Your task to perform on an android device: Open the web browser Image 0: 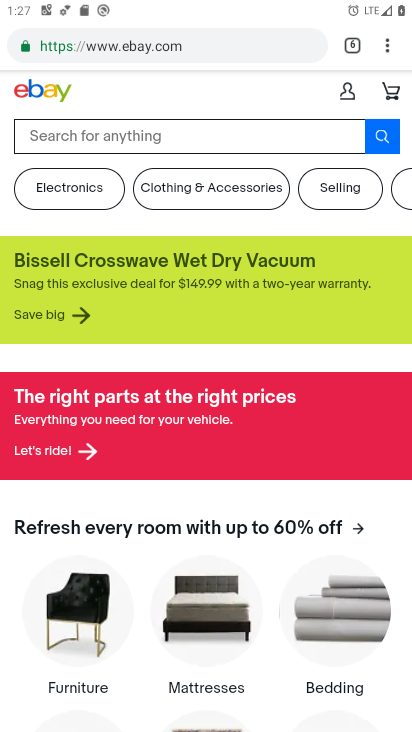
Step 0: press home button
Your task to perform on an android device: Open the web browser Image 1: 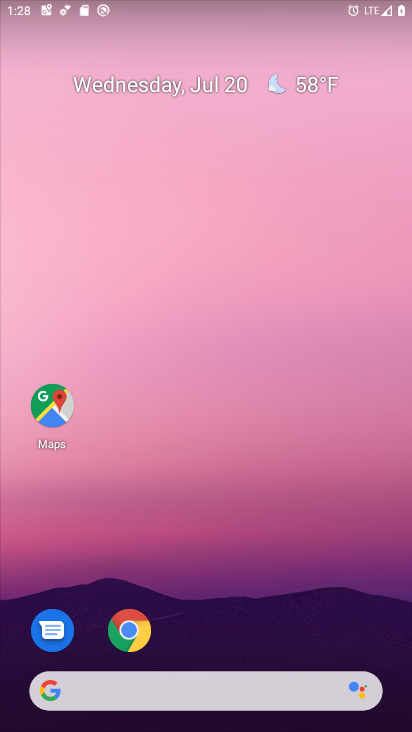
Step 1: drag from (188, 661) to (157, 102)
Your task to perform on an android device: Open the web browser Image 2: 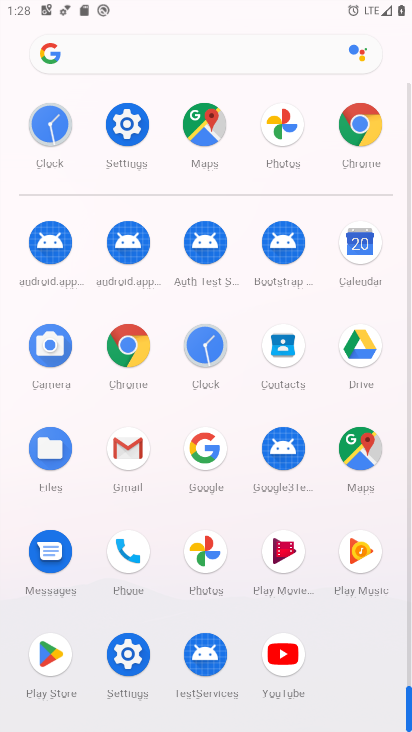
Step 2: click (109, 336)
Your task to perform on an android device: Open the web browser Image 3: 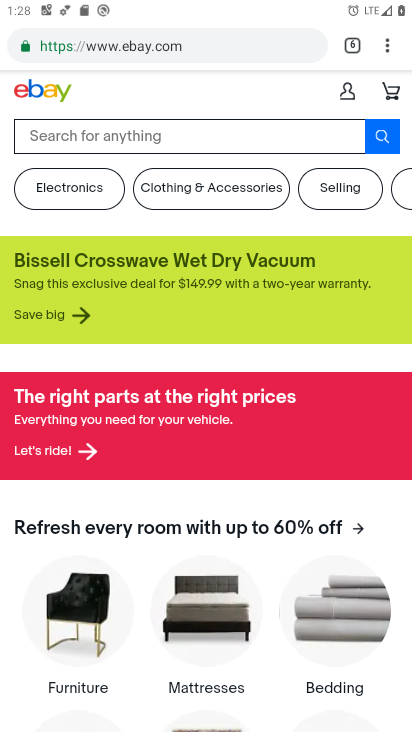
Step 3: task complete